Your task to perform on an android device: delete a single message in the gmail app Image 0: 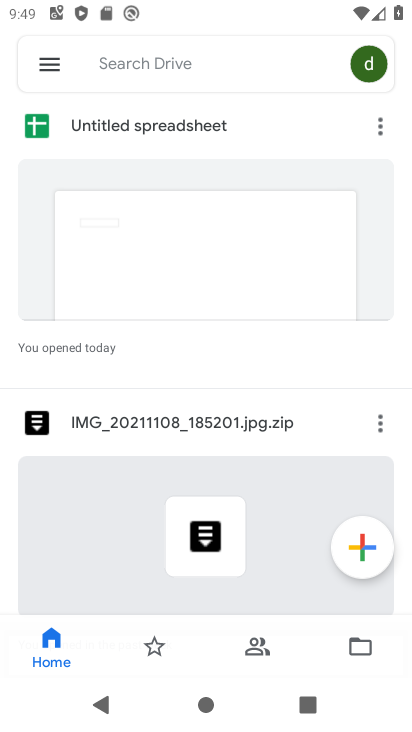
Step 0: press home button
Your task to perform on an android device: delete a single message in the gmail app Image 1: 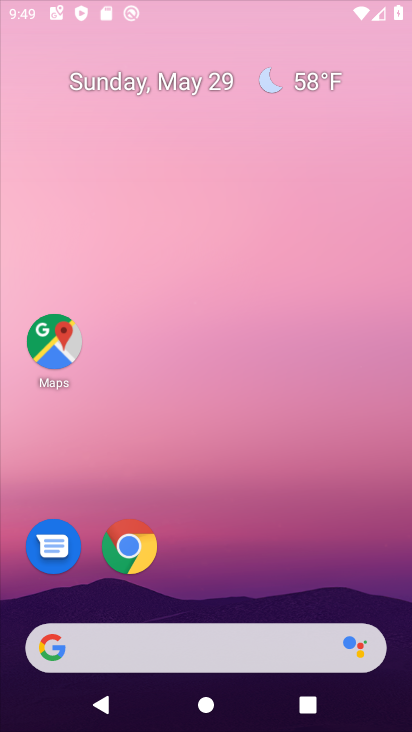
Step 1: drag from (295, 506) to (312, 20)
Your task to perform on an android device: delete a single message in the gmail app Image 2: 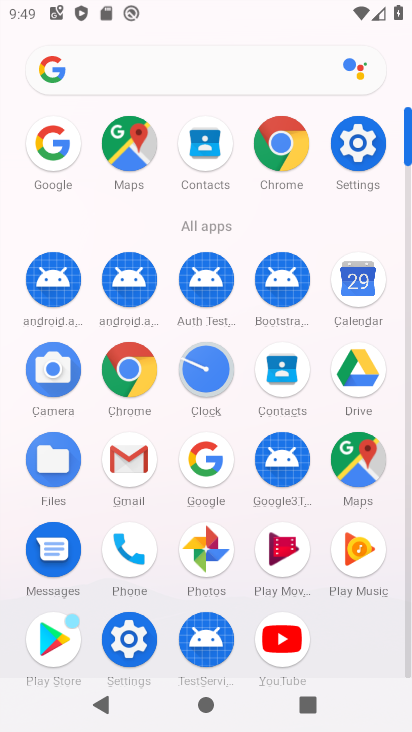
Step 2: click (120, 457)
Your task to perform on an android device: delete a single message in the gmail app Image 3: 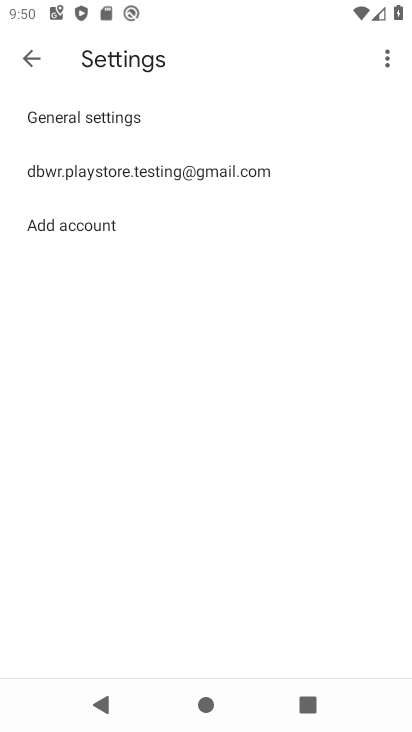
Step 3: click (16, 53)
Your task to perform on an android device: delete a single message in the gmail app Image 4: 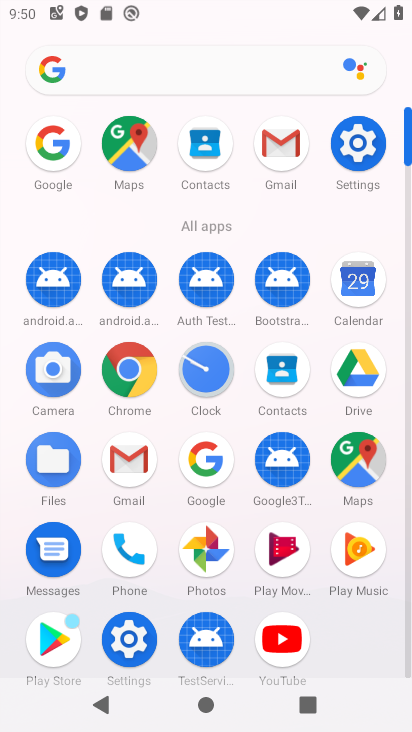
Step 4: click (289, 171)
Your task to perform on an android device: delete a single message in the gmail app Image 5: 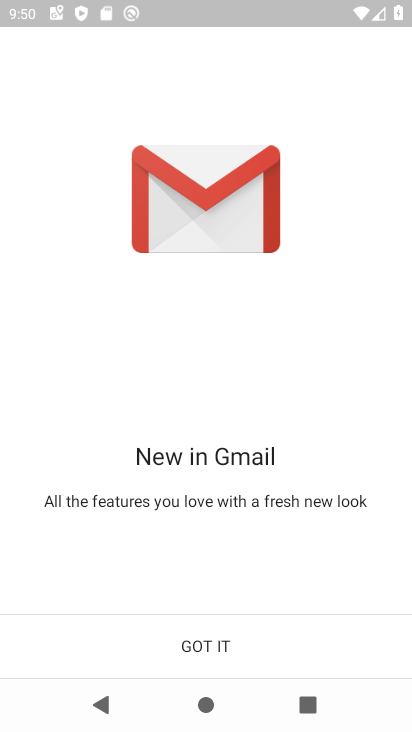
Step 5: click (245, 663)
Your task to perform on an android device: delete a single message in the gmail app Image 6: 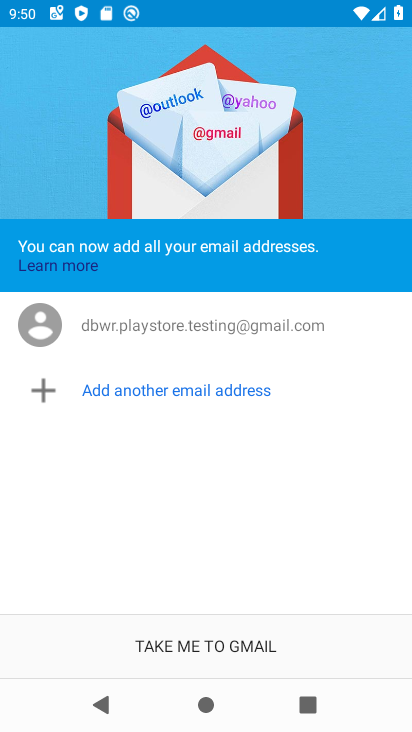
Step 6: click (171, 634)
Your task to perform on an android device: delete a single message in the gmail app Image 7: 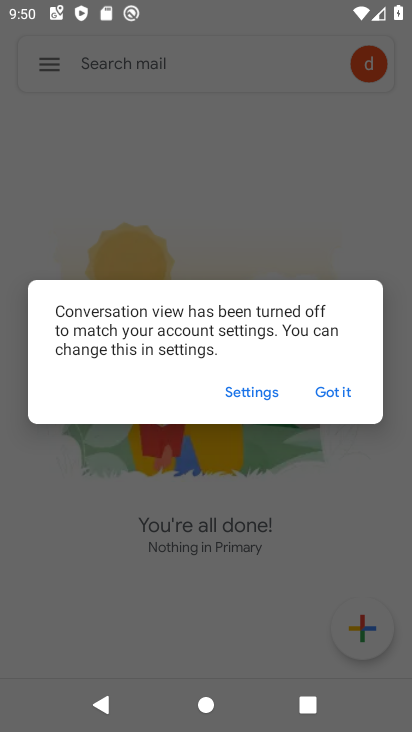
Step 7: click (336, 396)
Your task to perform on an android device: delete a single message in the gmail app Image 8: 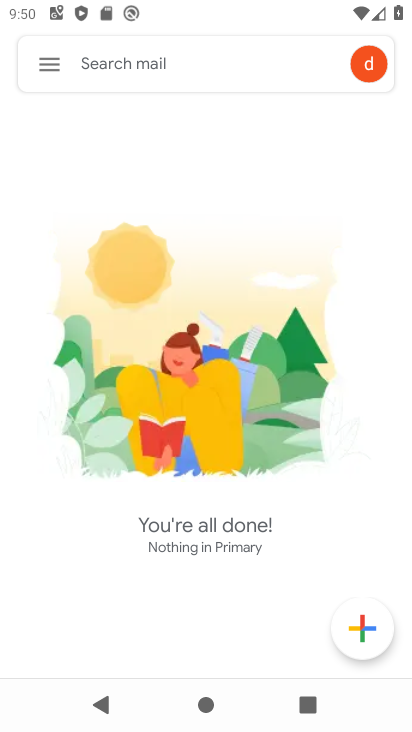
Step 8: task complete